Your task to perform on an android device: toggle data saver in the chrome app Image 0: 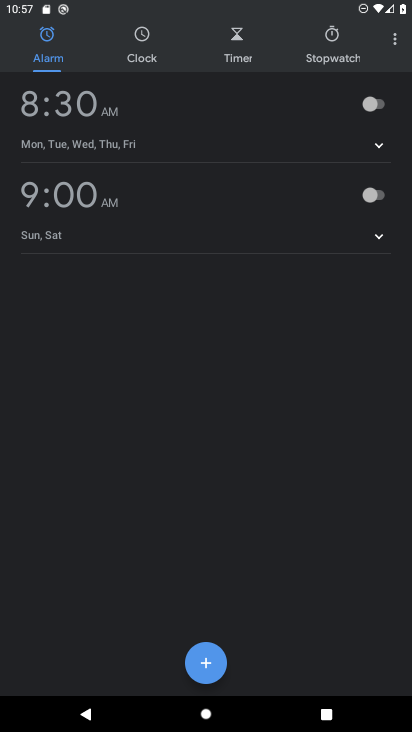
Step 0: press home button
Your task to perform on an android device: toggle data saver in the chrome app Image 1: 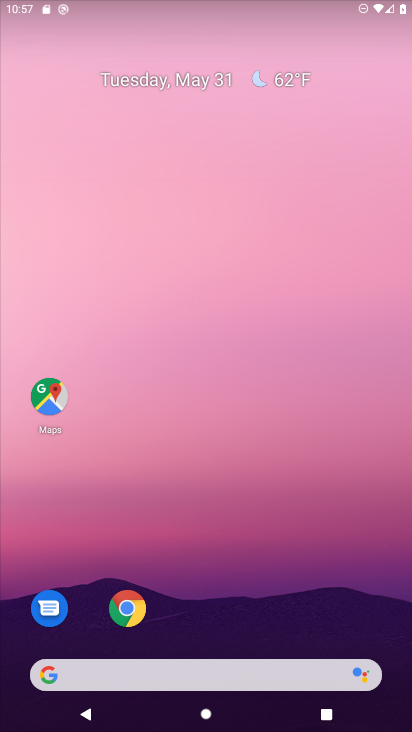
Step 1: drag from (330, 605) to (309, 195)
Your task to perform on an android device: toggle data saver in the chrome app Image 2: 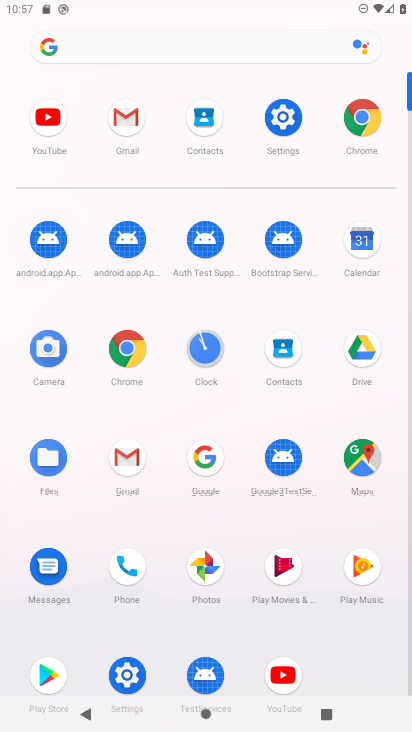
Step 2: click (146, 388)
Your task to perform on an android device: toggle data saver in the chrome app Image 3: 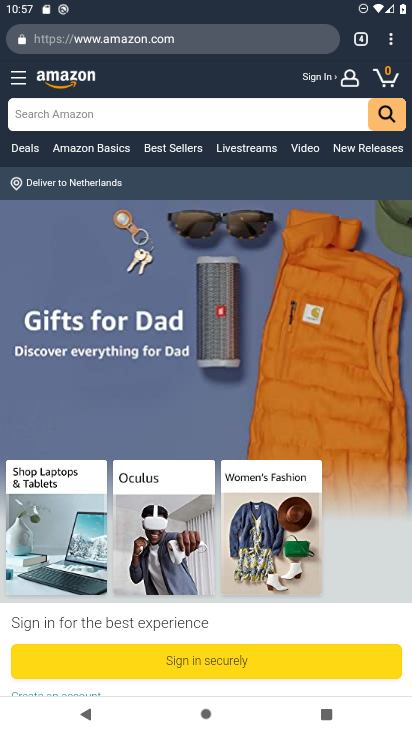
Step 3: drag from (399, 46) to (276, 508)
Your task to perform on an android device: toggle data saver in the chrome app Image 4: 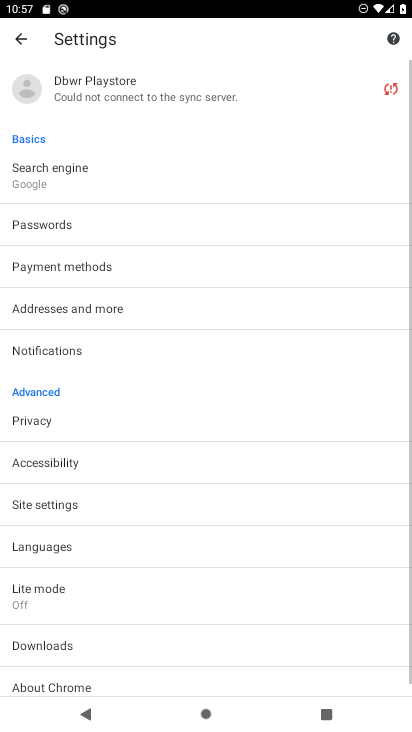
Step 4: drag from (237, 635) to (298, 354)
Your task to perform on an android device: toggle data saver in the chrome app Image 5: 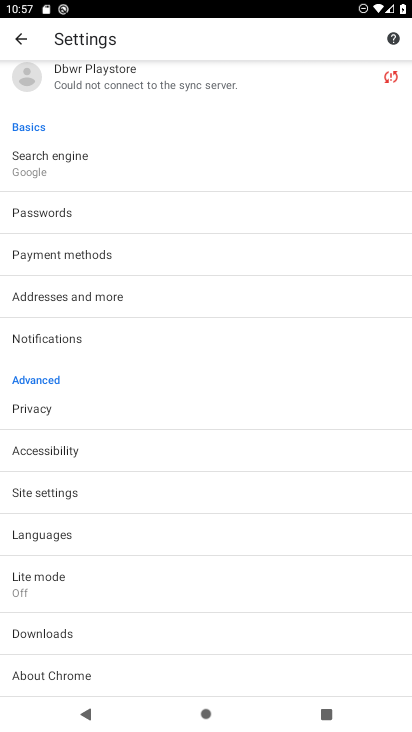
Step 5: click (116, 579)
Your task to perform on an android device: toggle data saver in the chrome app Image 6: 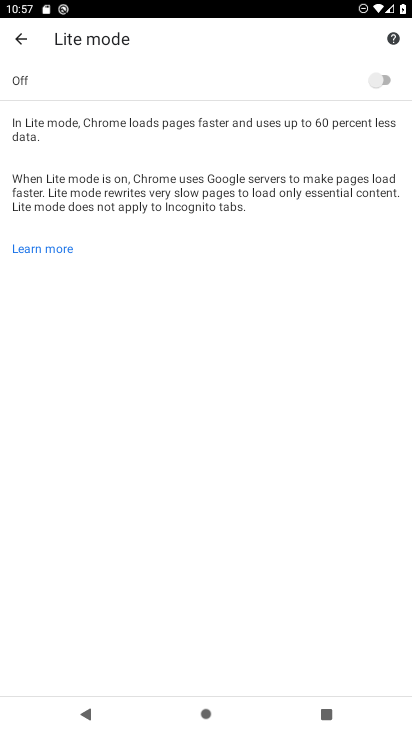
Step 6: click (381, 78)
Your task to perform on an android device: toggle data saver in the chrome app Image 7: 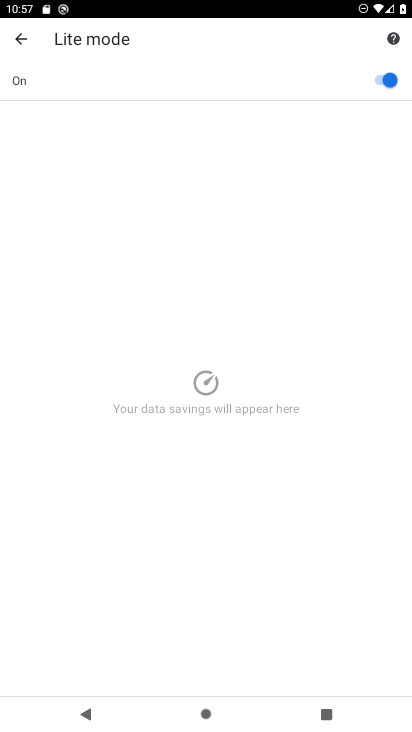
Step 7: task complete